Your task to perform on an android device: star an email in the gmail app Image 0: 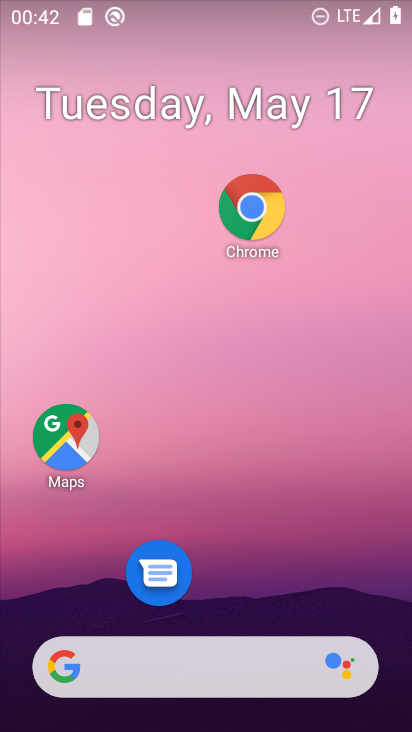
Step 0: drag from (190, 648) to (279, 7)
Your task to perform on an android device: star an email in the gmail app Image 1: 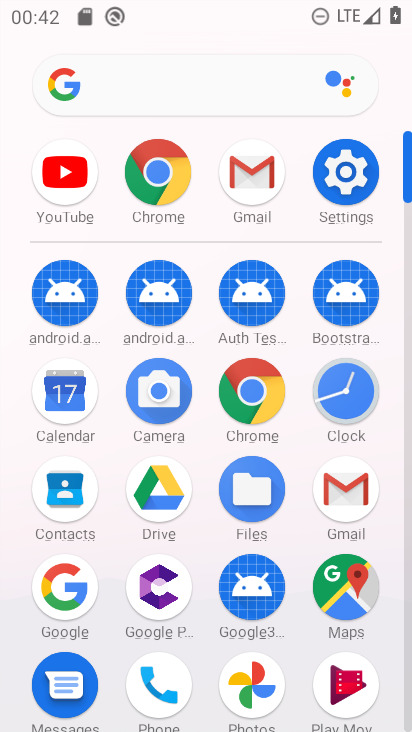
Step 1: click (337, 495)
Your task to perform on an android device: star an email in the gmail app Image 2: 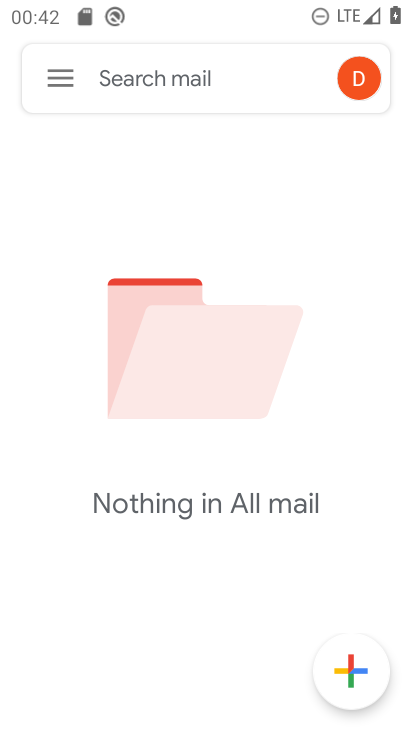
Step 2: click (56, 67)
Your task to perform on an android device: star an email in the gmail app Image 3: 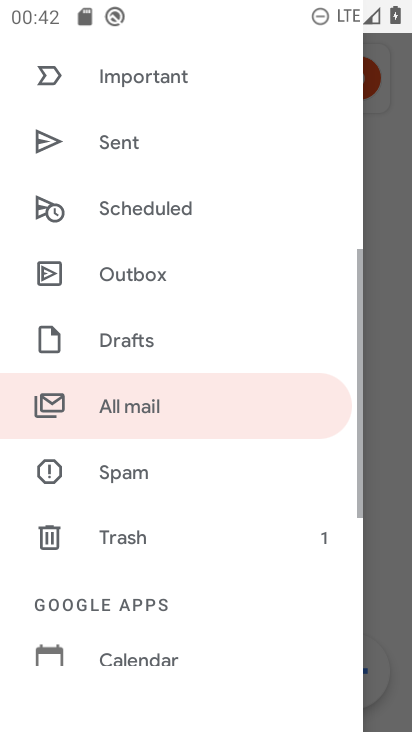
Step 3: drag from (175, 128) to (225, 524)
Your task to perform on an android device: star an email in the gmail app Image 4: 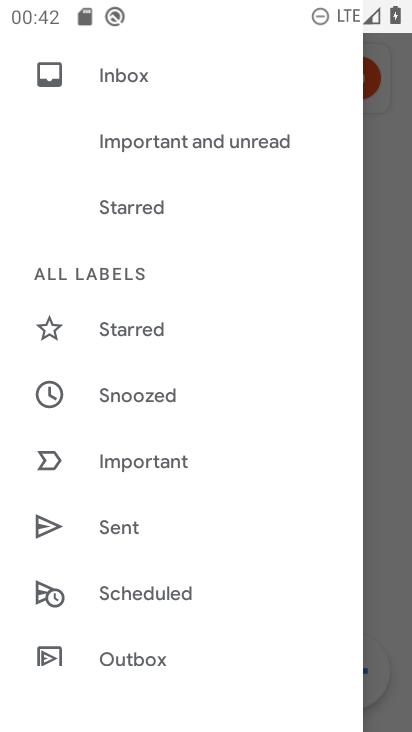
Step 4: click (163, 332)
Your task to perform on an android device: star an email in the gmail app Image 5: 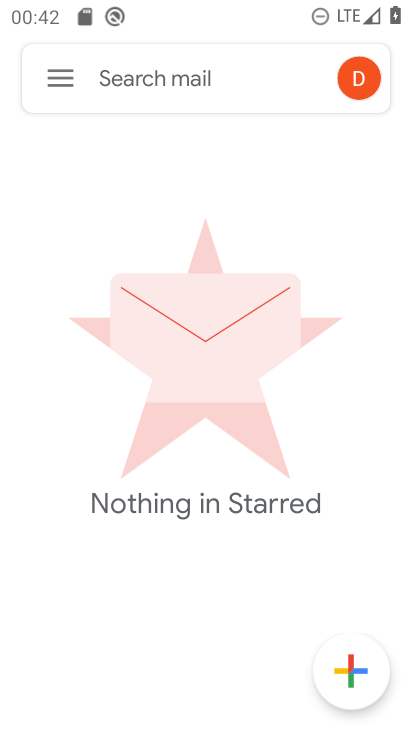
Step 5: task complete